Your task to perform on an android device: Search for "razer naga" on ebay, select the first entry, and add it to the cart. Image 0: 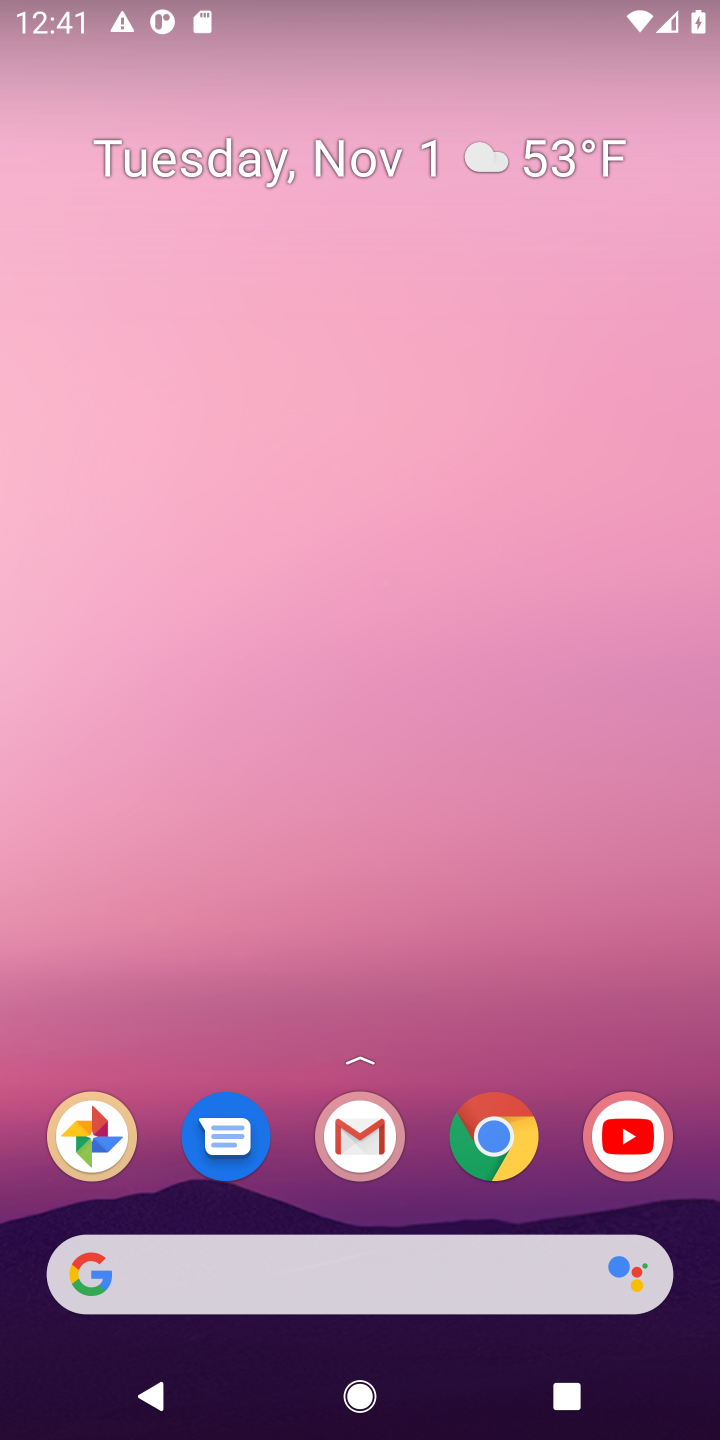
Step 0: press home button
Your task to perform on an android device: Search for "razer naga" on ebay, select the first entry, and add it to the cart. Image 1: 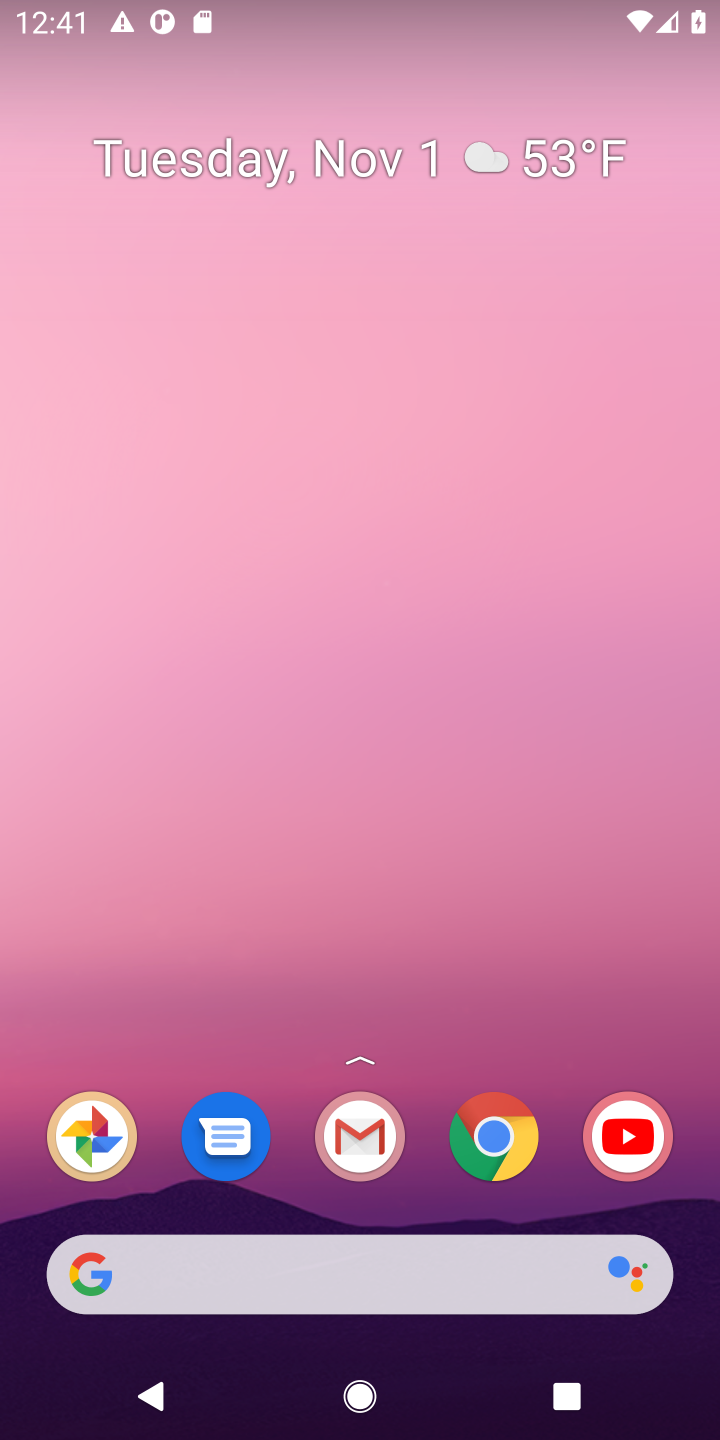
Step 1: click (147, 1265)
Your task to perform on an android device: Search for "razer naga" on ebay, select the first entry, and add it to the cart. Image 2: 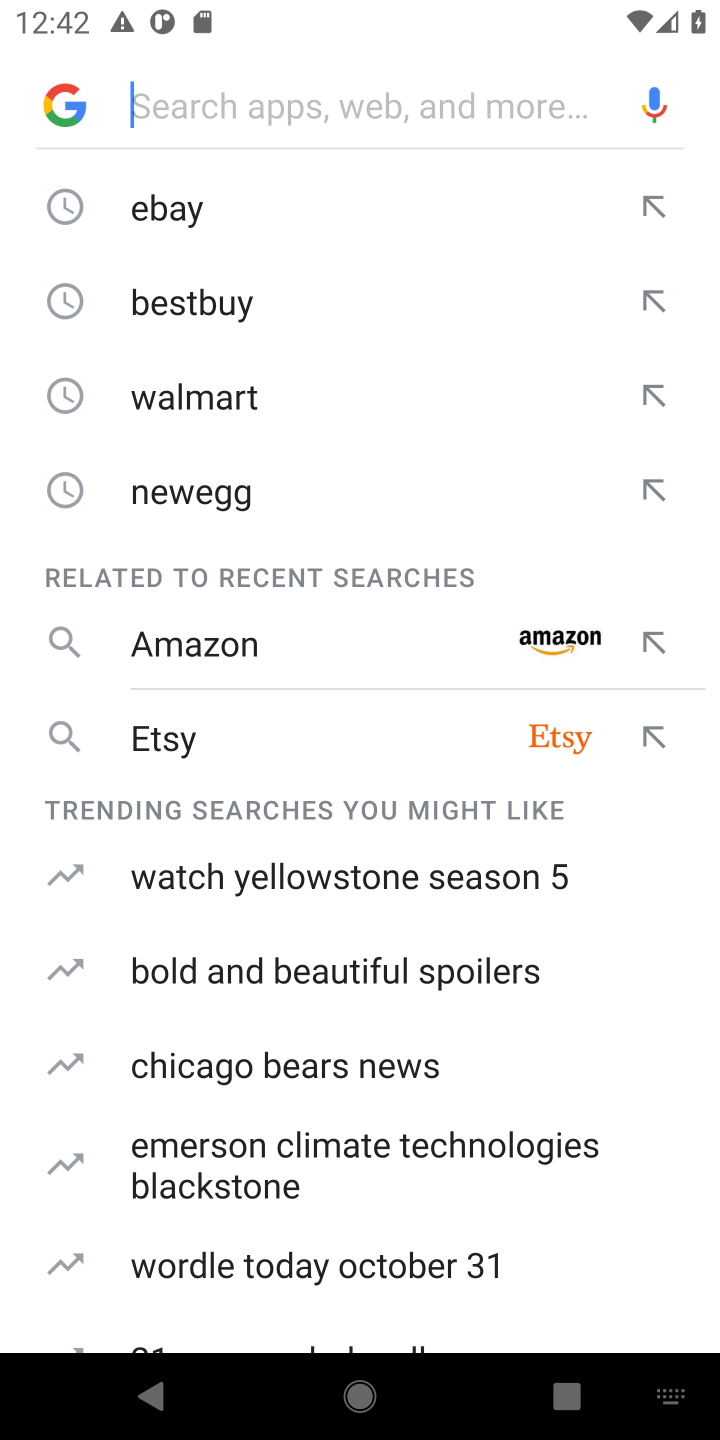
Step 2: press enter
Your task to perform on an android device: Search for "razer naga" on ebay, select the first entry, and add it to the cart. Image 3: 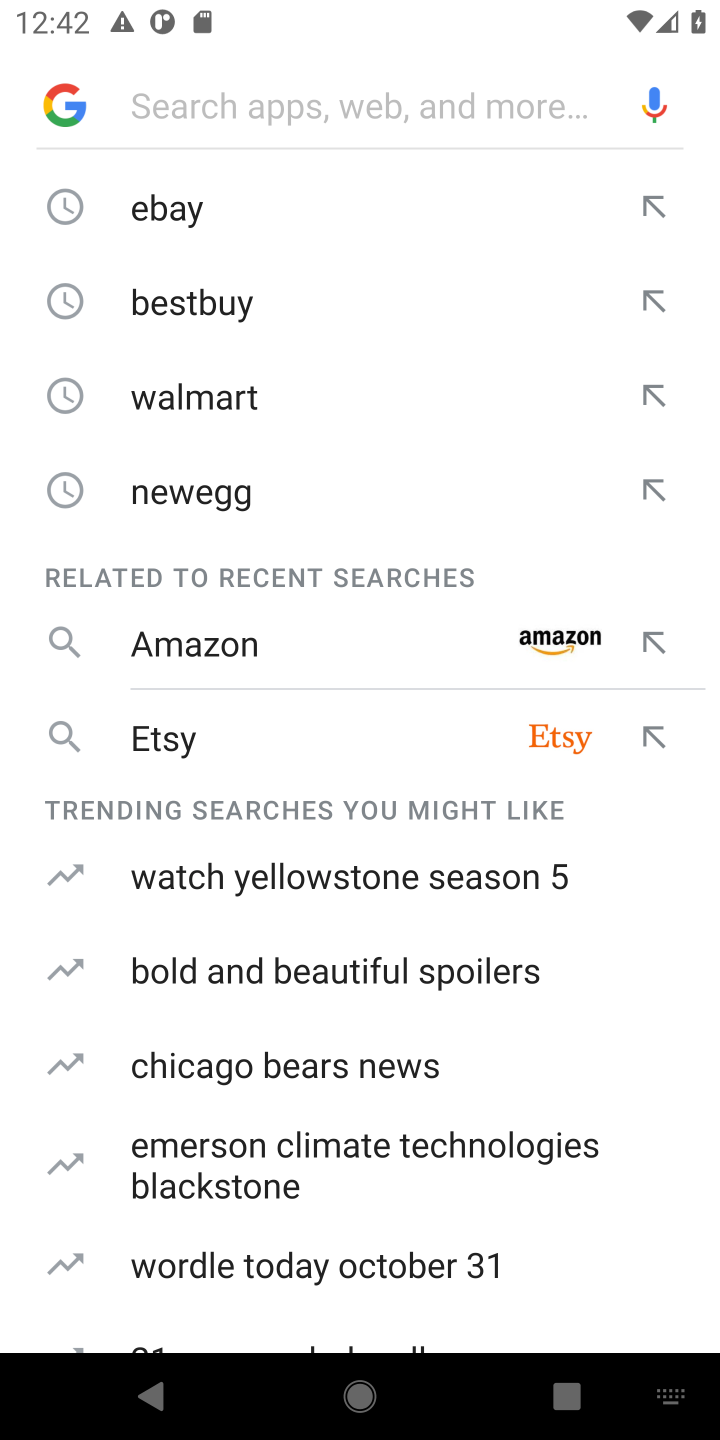
Step 3: type "ebay"
Your task to perform on an android device: Search for "razer naga" on ebay, select the first entry, and add it to the cart. Image 4: 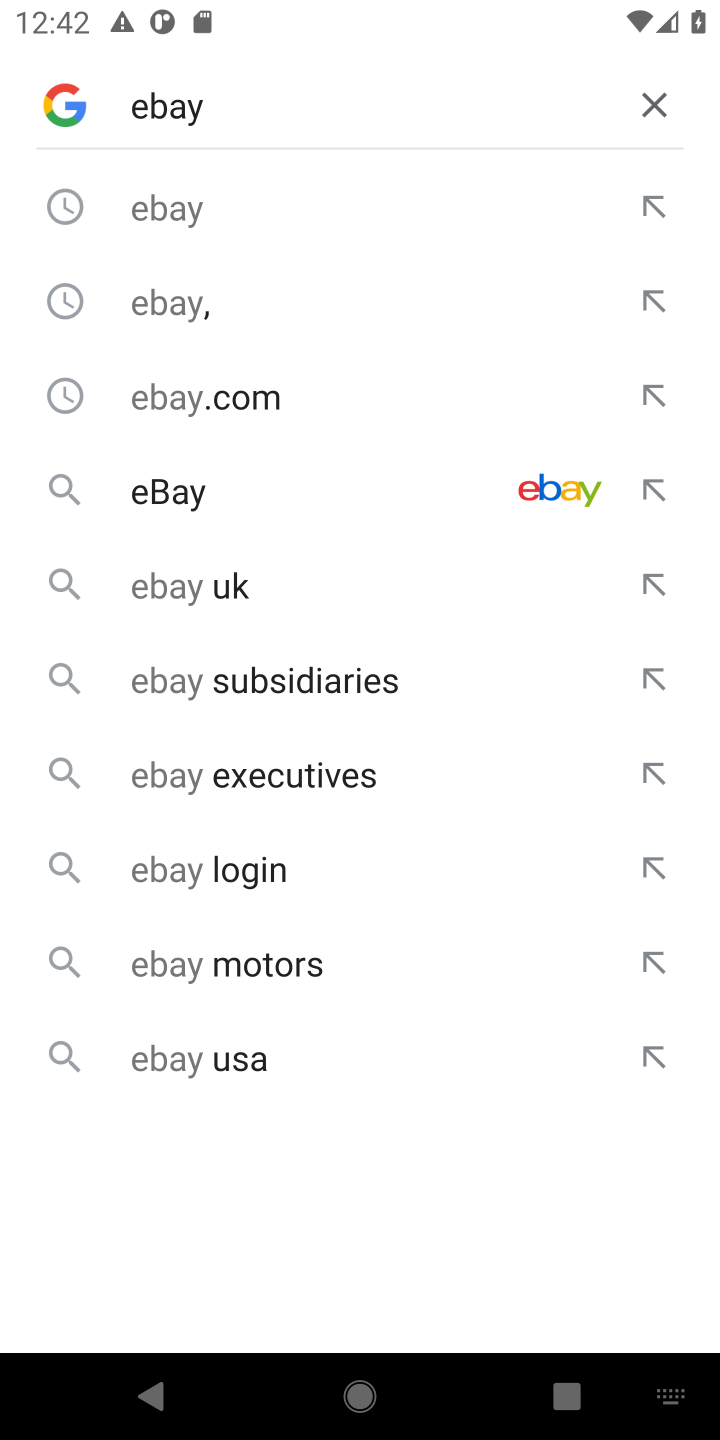
Step 4: press enter
Your task to perform on an android device: Search for "razer naga" on ebay, select the first entry, and add it to the cart. Image 5: 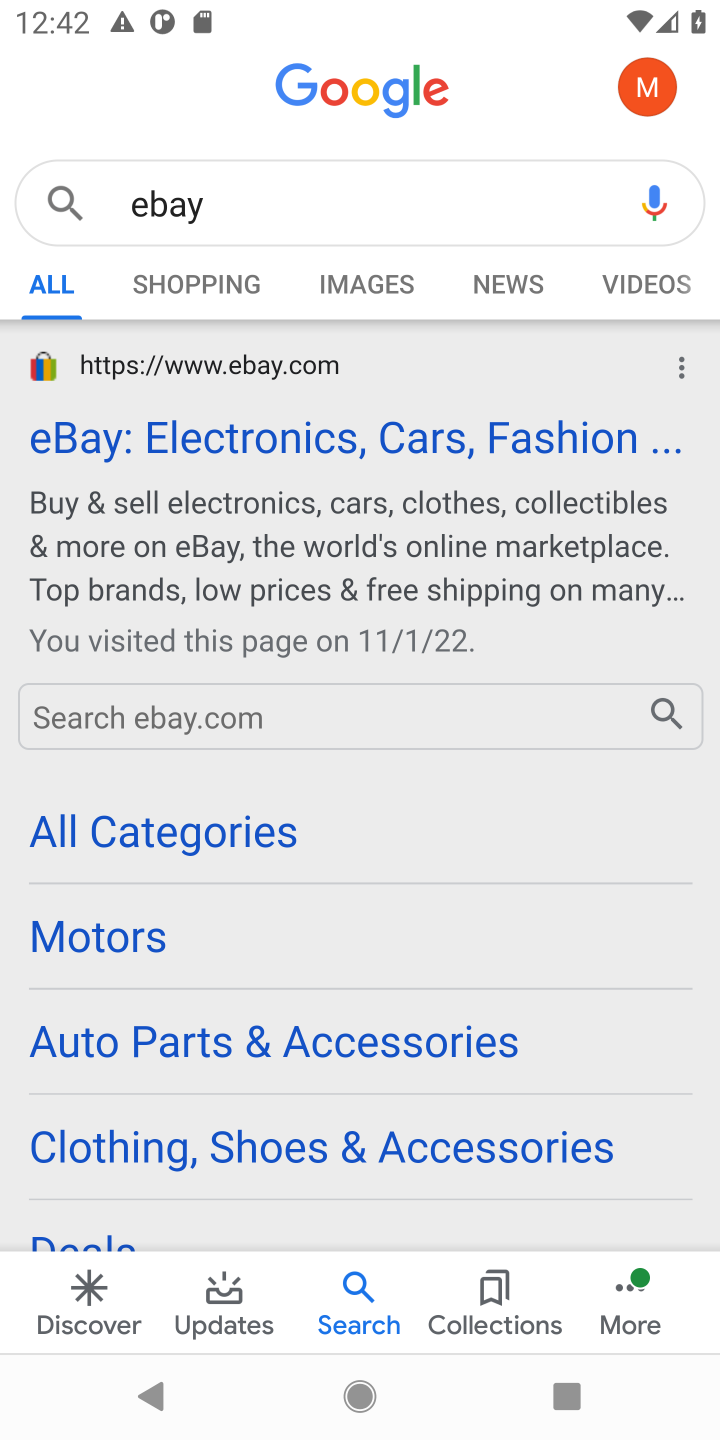
Step 5: click (315, 454)
Your task to perform on an android device: Search for "razer naga" on ebay, select the first entry, and add it to the cart. Image 6: 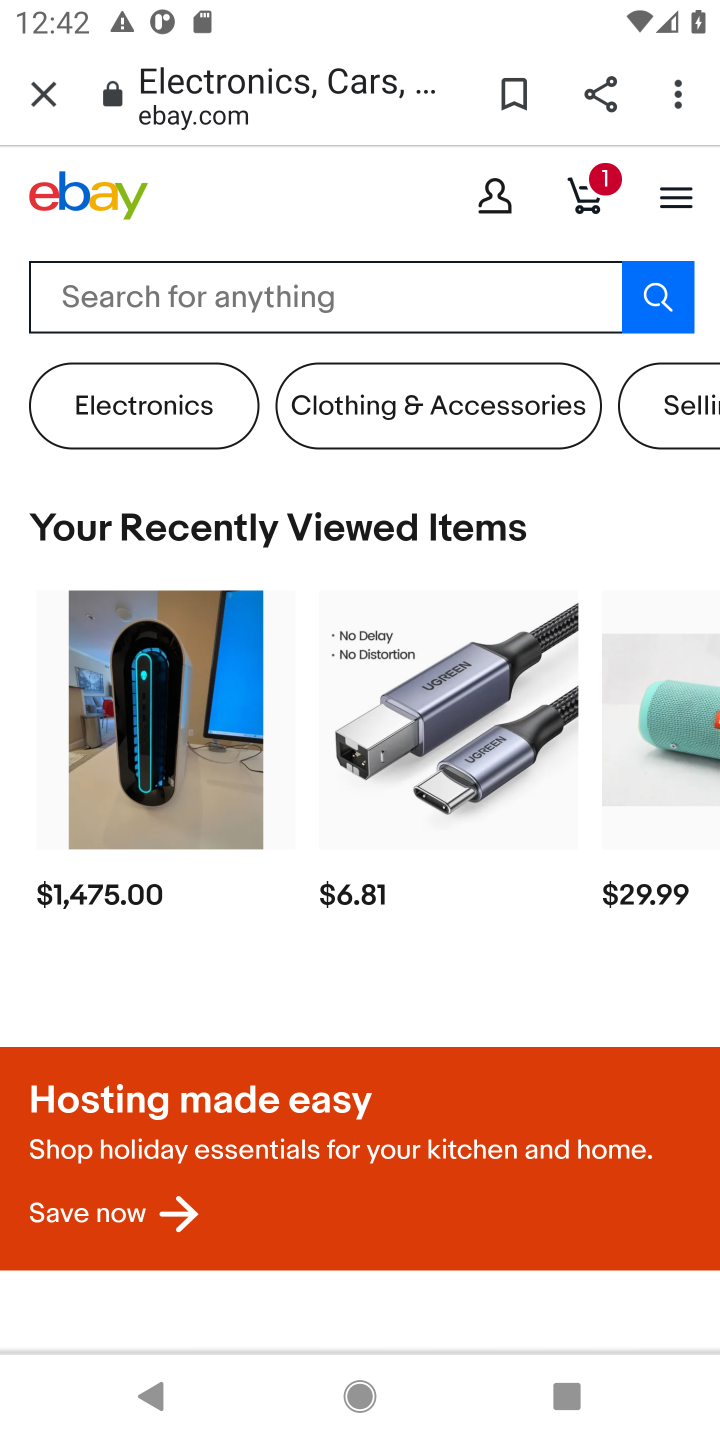
Step 6: click (118, 286)
Your task to perform on an android device: Search for "razer naga" on ebay, select the first entry, and add it to the cart. Image 7: 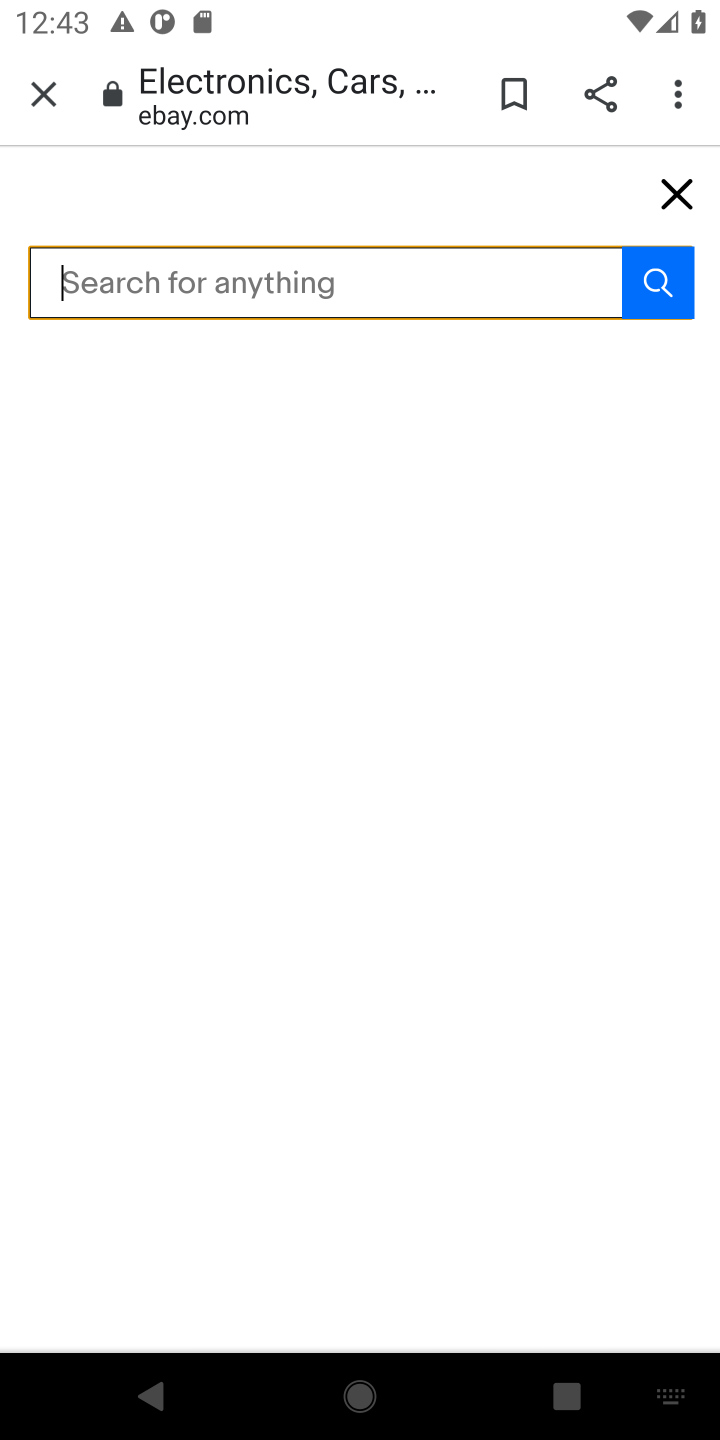
Step 7: type "razer naga"
Your task to perform on an android device: Search for "razer naga" on ebay, select the first entry, and add it to the cart. Image 8: 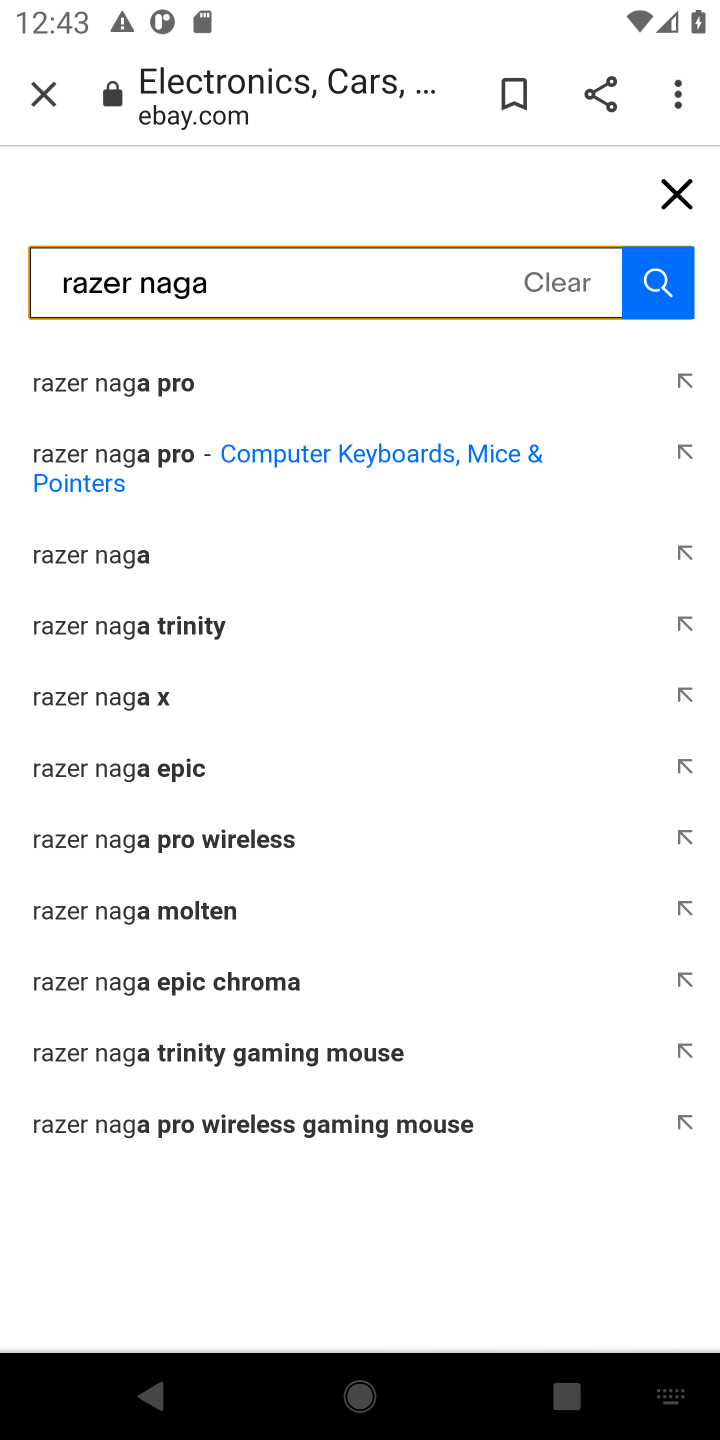
Step 8: click (658, 282)
Your task to perform on an android device: Search for "razer naga" on ebay, select the first entry, and add it to the cart. Image 9: 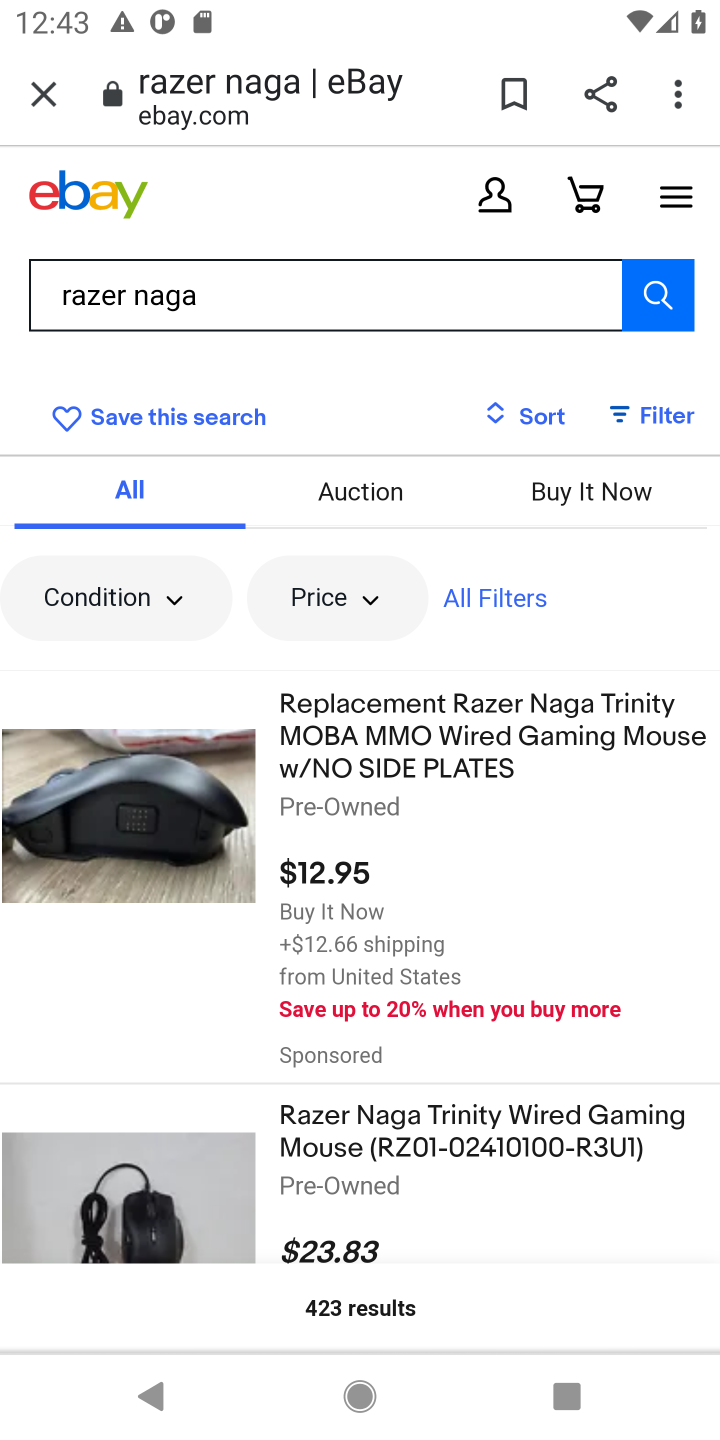
Step 9: drag from (539, 1037) to (501, 594)
Your task to perform on an android device: Search for "razer naga" on ebay, select the first entry, and add it to the cart. Image 10: 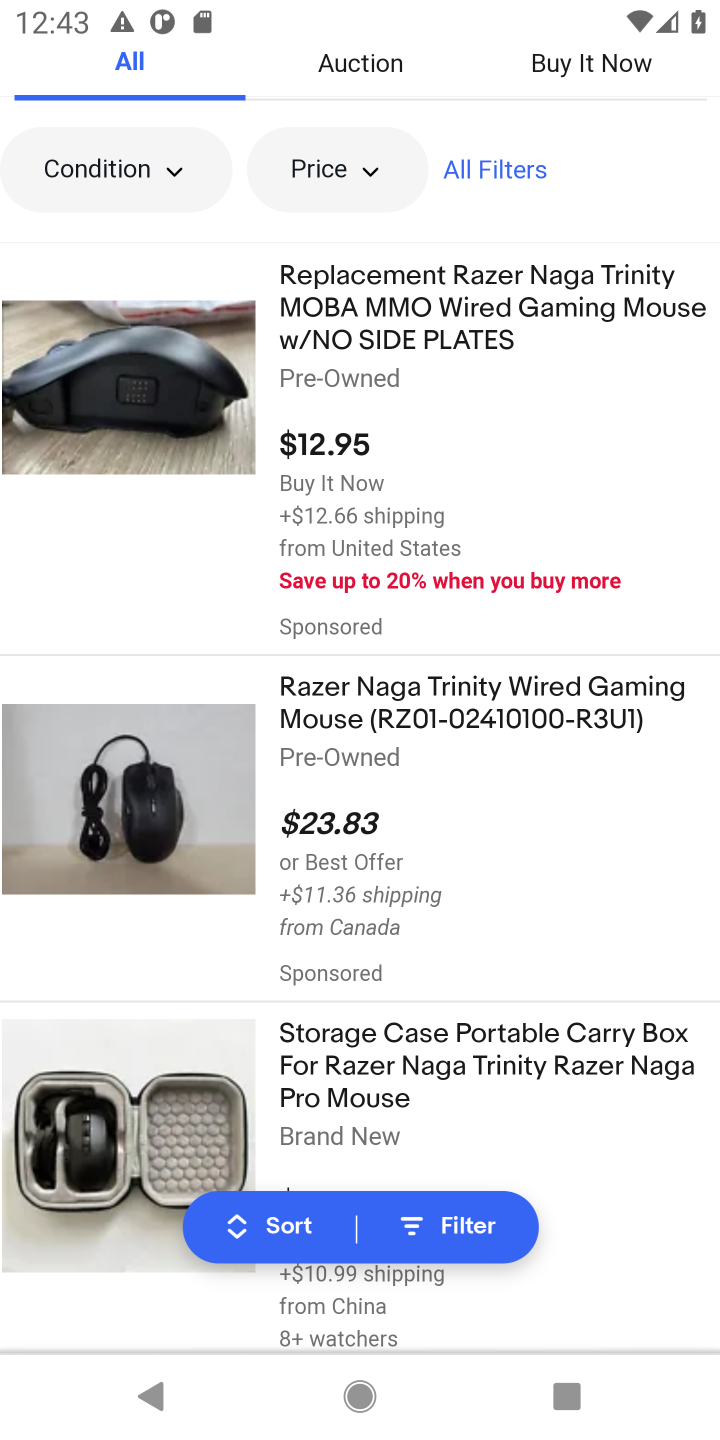
Step 10: click (345, 305)
Your task to perform on an android device: Search for "razer naga" on ebay, select the first entry, and add it to the cart. Image 11: 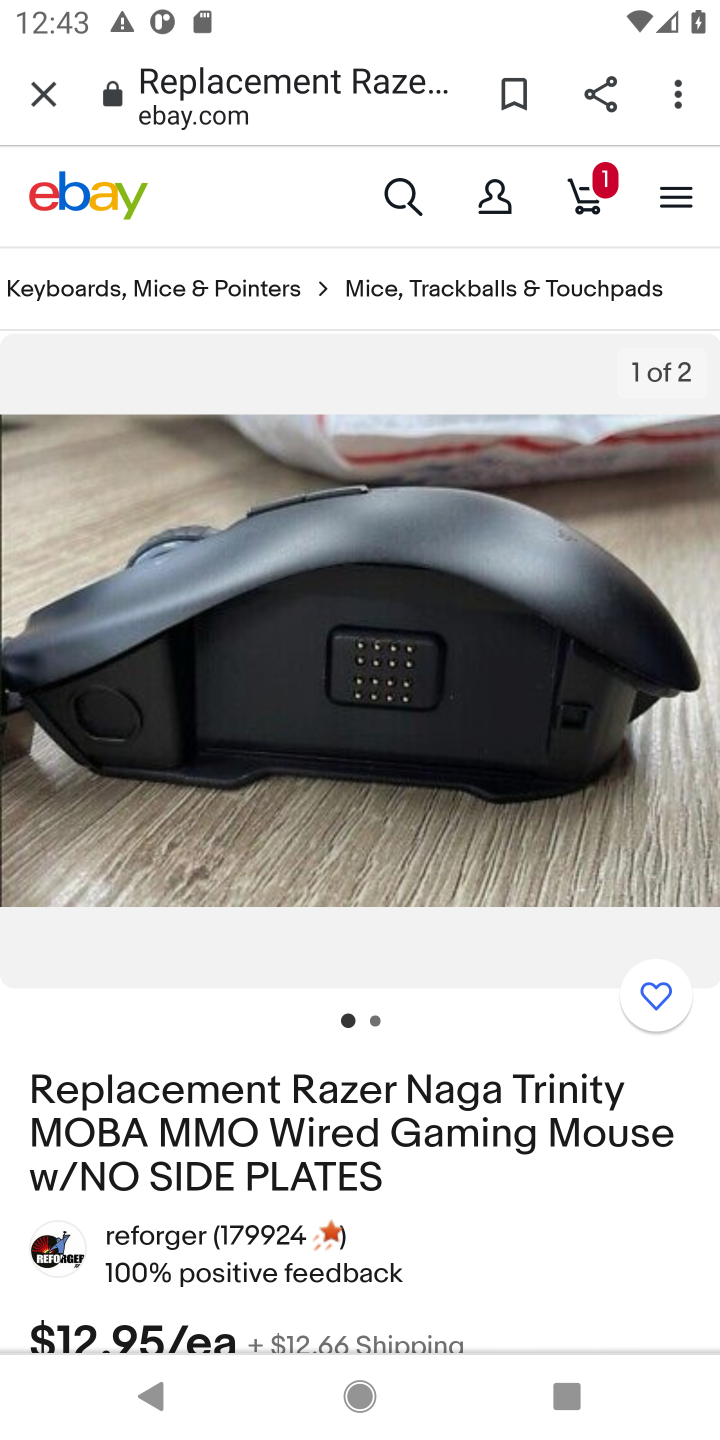
Step 11: drag from (487, 1000) to (492, 689)
Your task to perform on an android device: Search for "razer naga" on ebay, select the first entry, and add it to the cart. Image 12: 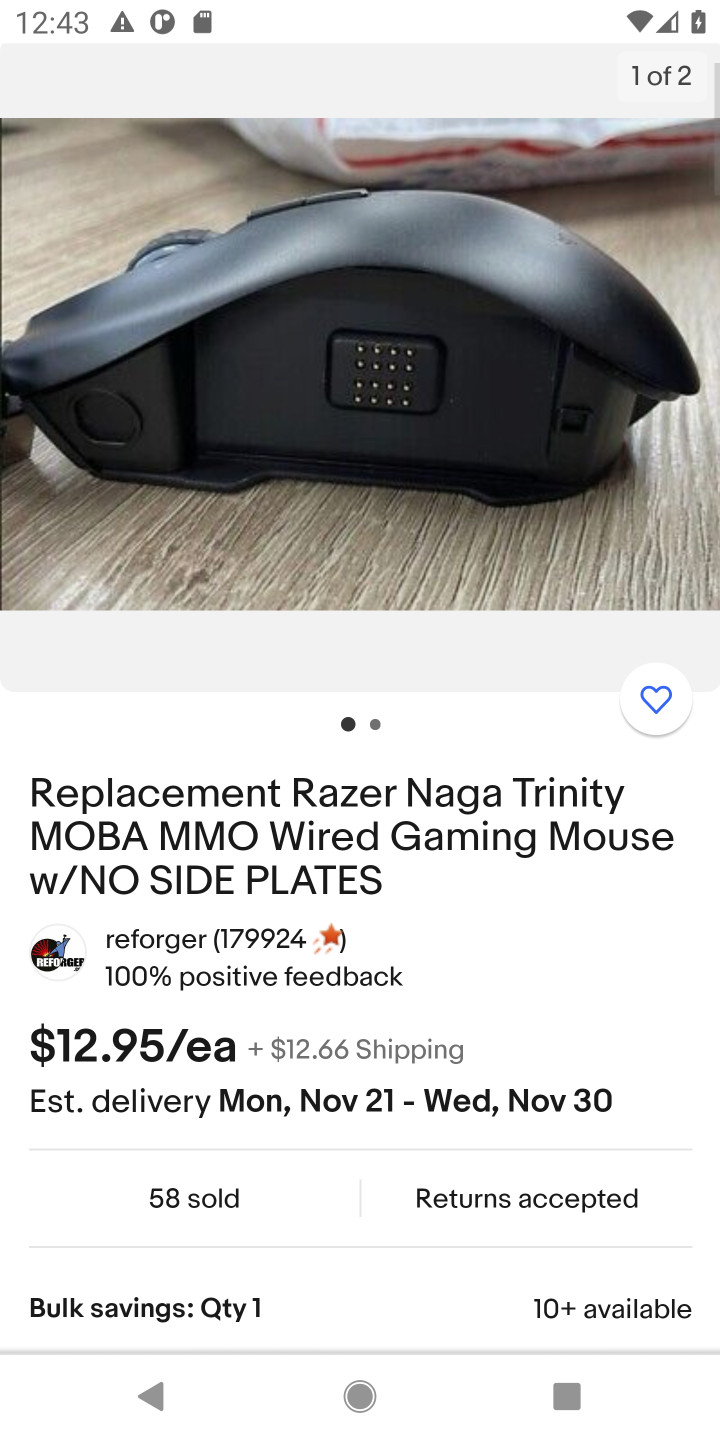
Step 12: drag from (407, 943) to (384, 448)
Your task to perform on an android device: Search for "razer naga" on ebay, select the first entry, and add it to the cart. Image 13: 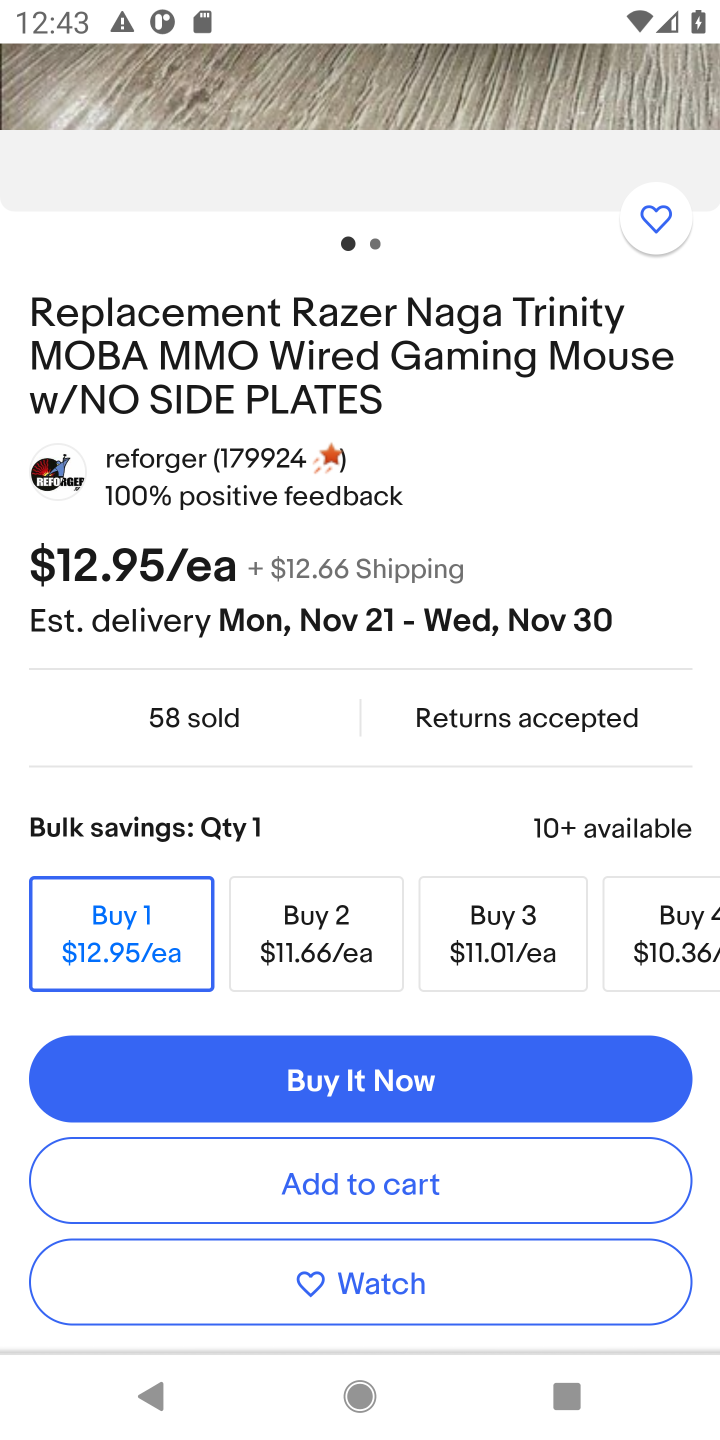
Step 13: click (416, 1179)
Your task to perform on an android device: Search for "razer naga" on ebay, select the first entry, and add it to the cart. Image 14: 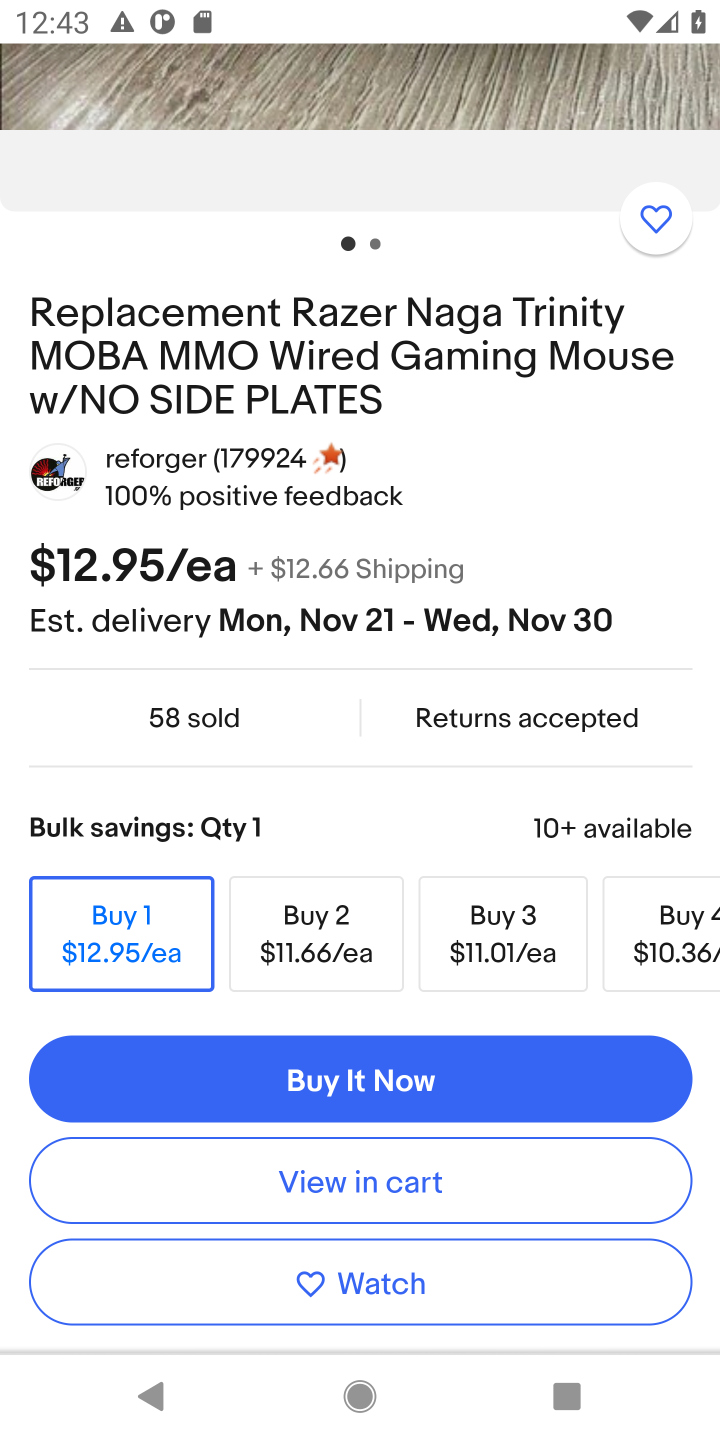
Step 14: task complete